Your task to perform on an android device: see sites visited before in the chrome app Image 0: 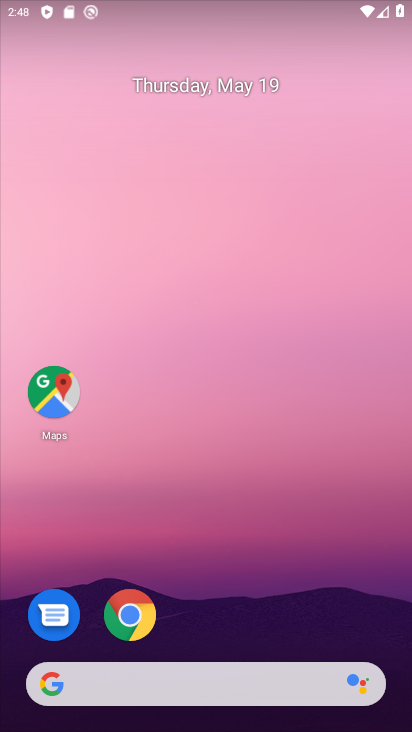
Step 0: drag from (338, 595) to (342, 234)
Your task to perform on an android device: see sites visited before in the chrome app Image 1: 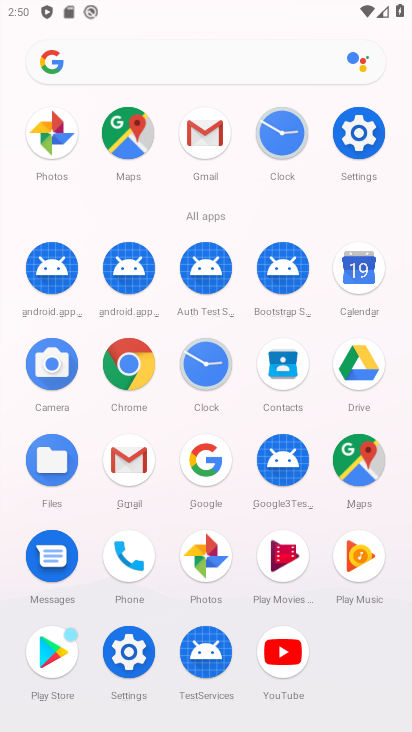
Step 1: click (121, 361)
Your task to perform on an android device: see sites visited before in the chrome app Image 2: 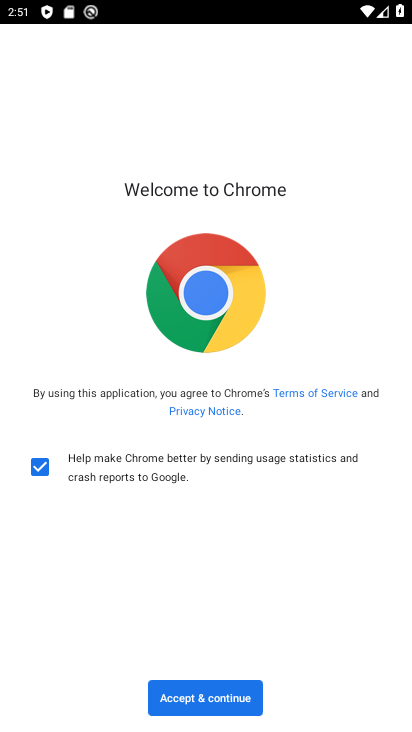
Step 2: click (236, 703)
Your task to perform on an android device: see sites visited before in the chrome app Image 3: 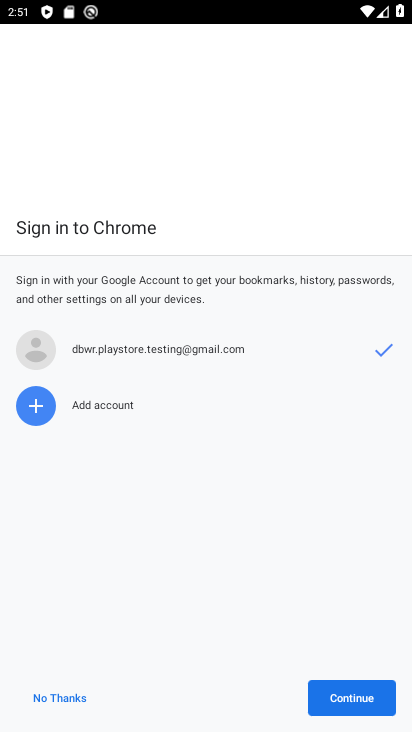
Step 3: click (350, 696)
Your task to perform on an android device: see sites visited before in the chrome app Image 4: 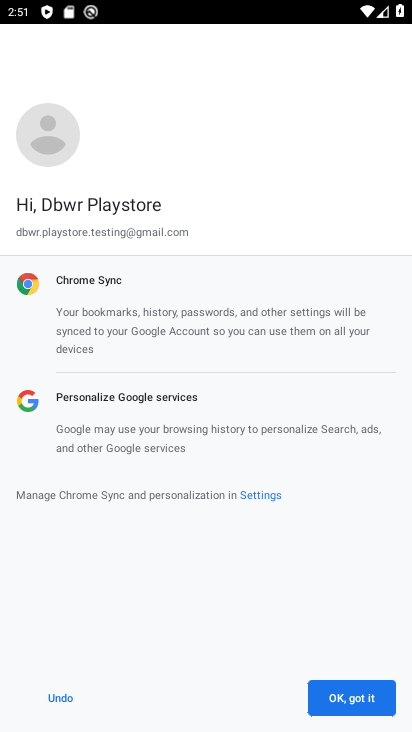
Step 4: click (350, 696)
Your task to perform on an android device: see sites visited before in the chrome app Image 5: 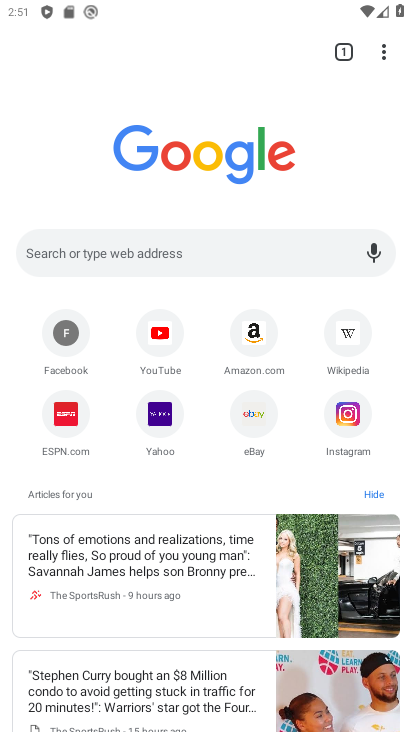
Step 5: task complete